Your task to perform on an android device: Open the map Image 0: 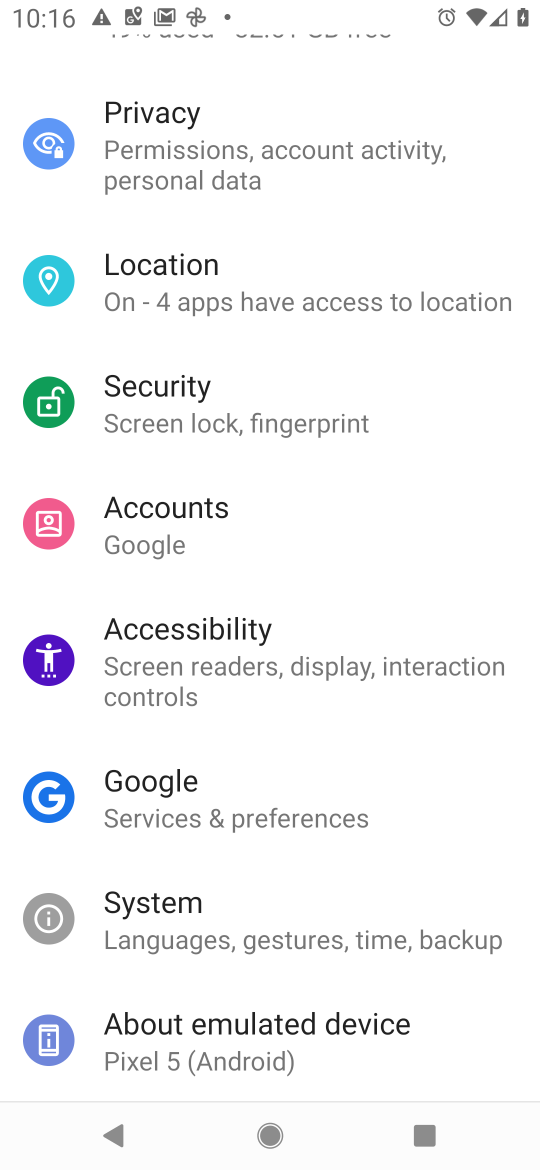
Step 0: press home button
Your task to perform on an android device: Open the map Image 1: 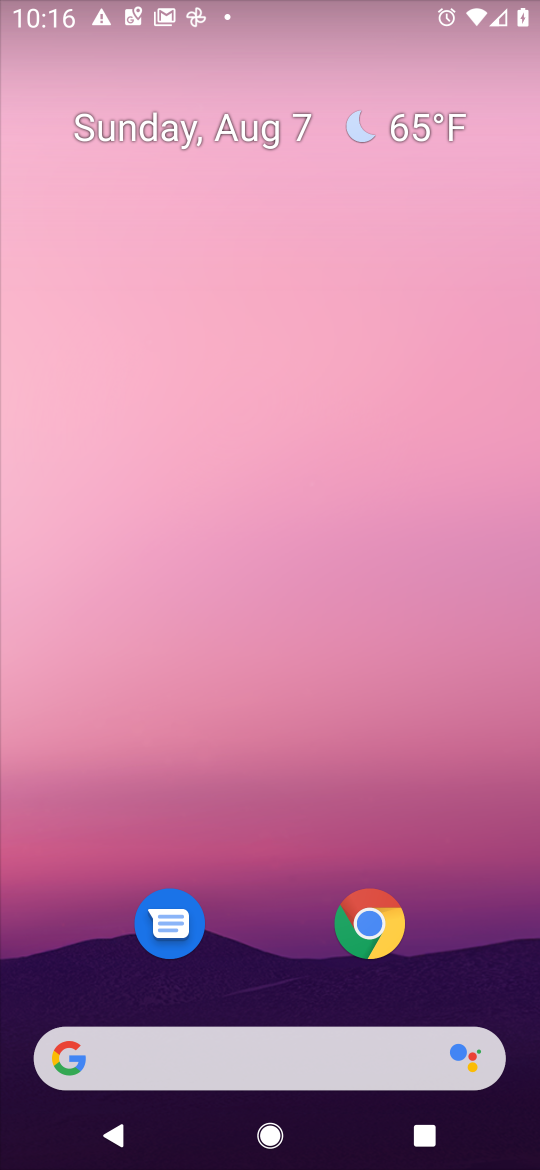
Step 1: drag from (482, 952) to (249, 136)
Your task to perform on an android device: Open the map Image 2: 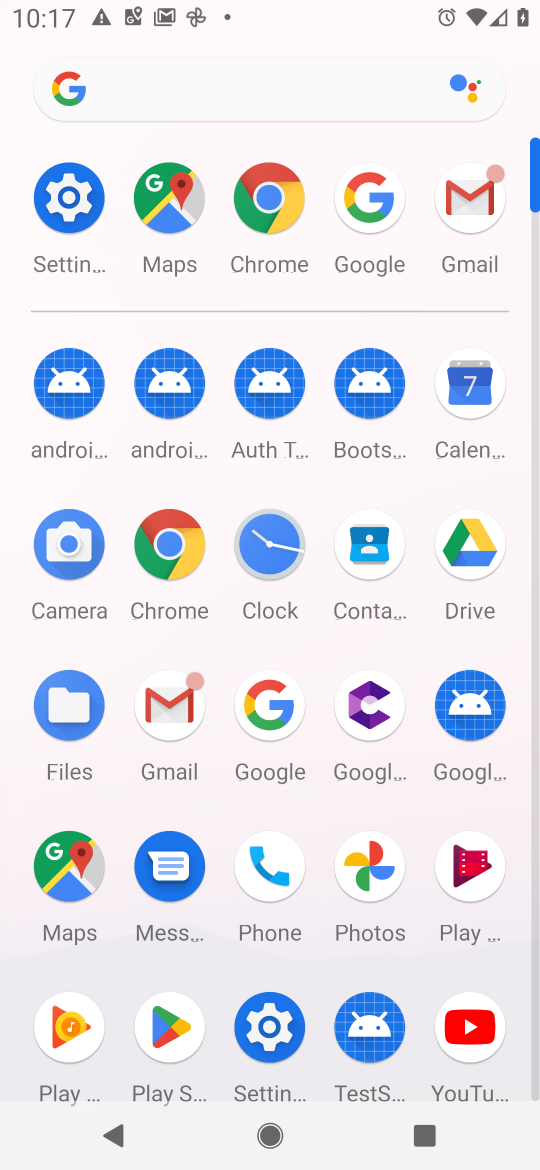
Step 2: click (70, 872)
Your task to perform on an android device: Open the map Image 3: 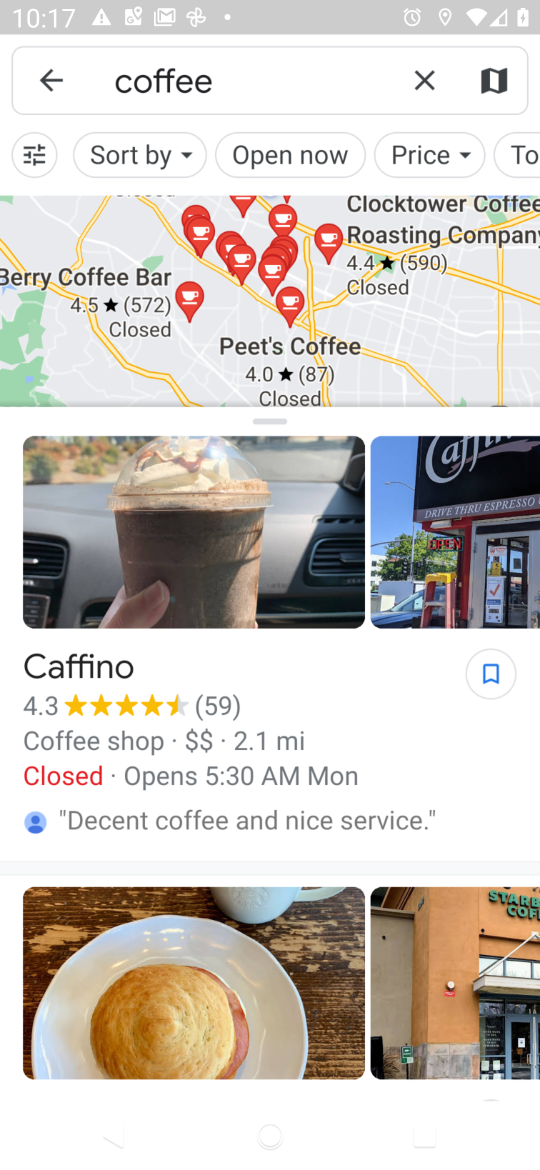
Step 3: click (418, 73)
Your task to perform on an android device: Open the map Image 4: 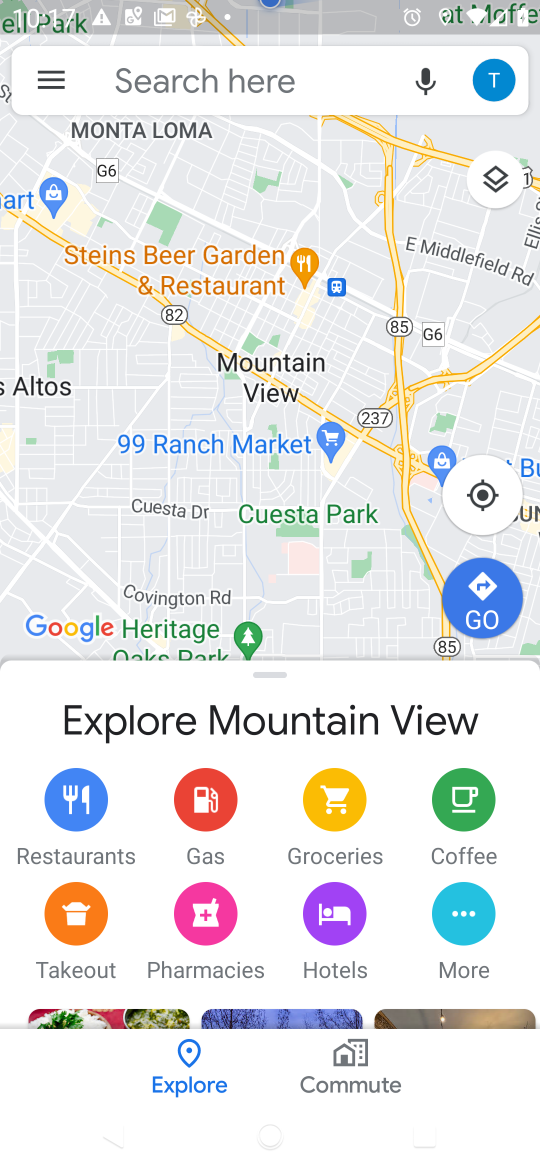
Step 4: task complete